Your task to perform on an android device: turn pop-ups on in chrome Image 0: 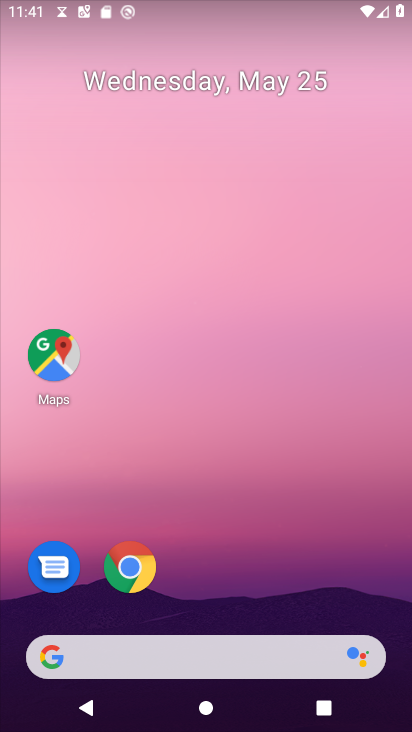
Step 0: click (137, 524)
Your task to perform on an android device: turn pop-ups on in chrome Image 1: 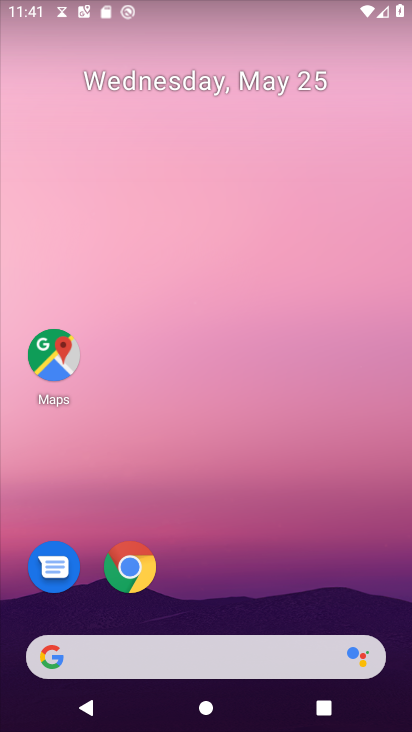
Step 1: click (136, 558)
Your task to perform on an android device: turn pop-ups on in chrome Image 2: 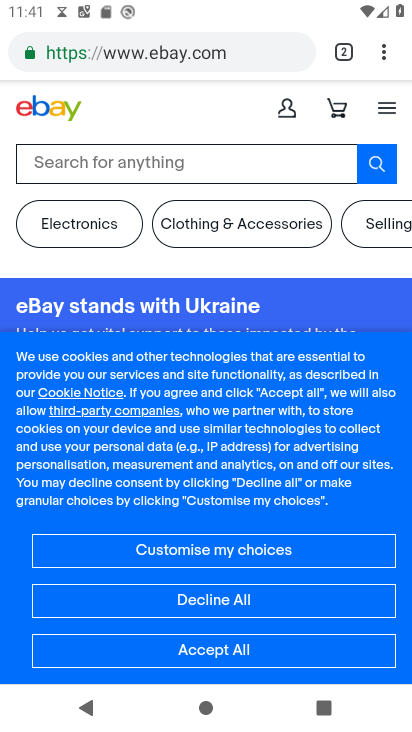
Step 2: click (383, 59)
Your task to perform on an android device: turn pop-ups on in chrome Image 3: 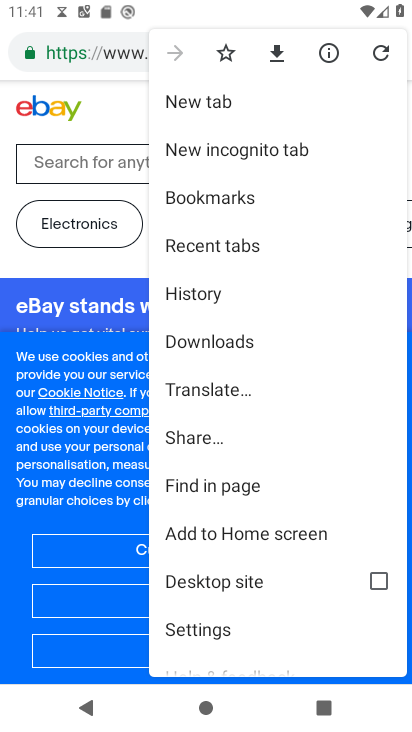
Step 3: click (221, 631)
Your task to perform on an android device: turn pop-ups on in chrome Image 4: 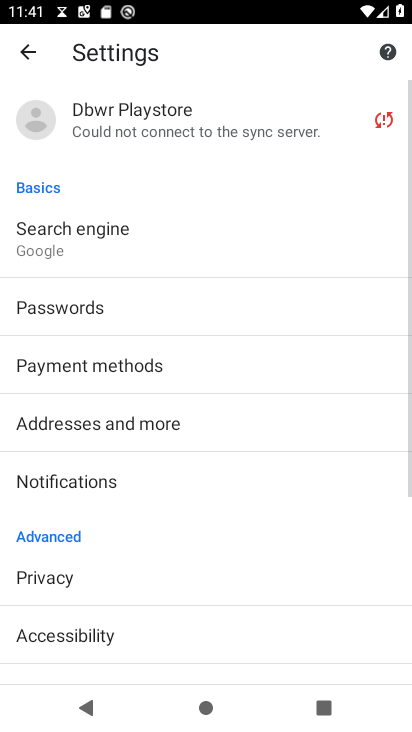
Step 4: drag from (193, 633) to (202, 214)
Your task to perform on an android device: turn pop-ups on in chrome Image 5: 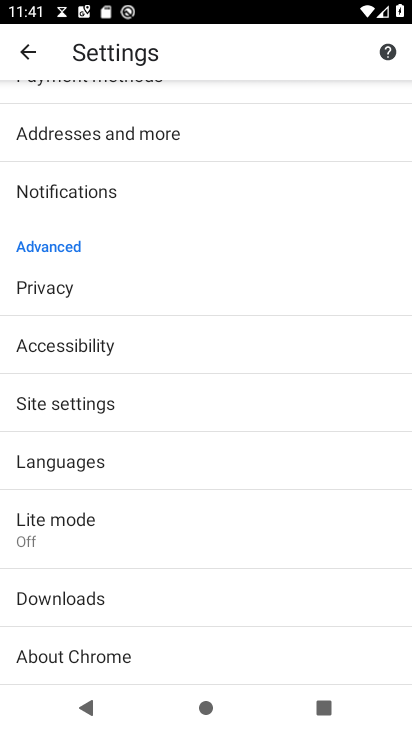
Step 5: click (38, 407)
Your task to perform on an android device: turn pop-ups on in chrome Image 6: 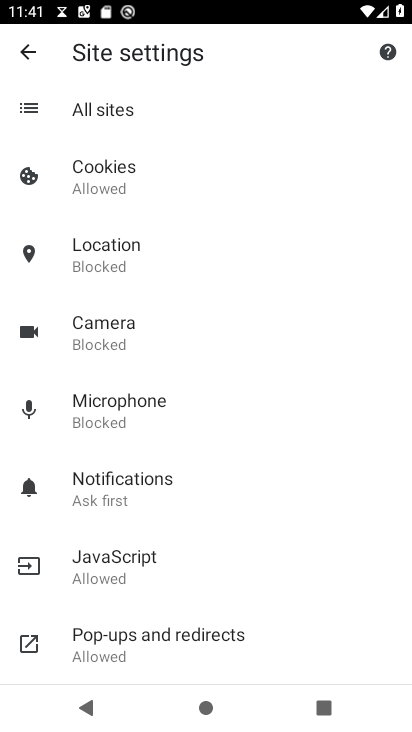
Step 6: click (112, 625)
Your task to perform on an android device: turn pop-ups on in chrome Image 7: 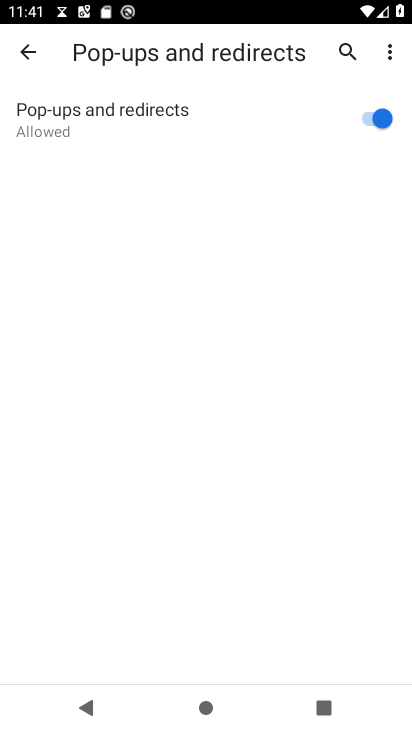
Step 7: click (379, 118)
Your task to perform on an android device: turn pop-ups on in chrome Image 8: 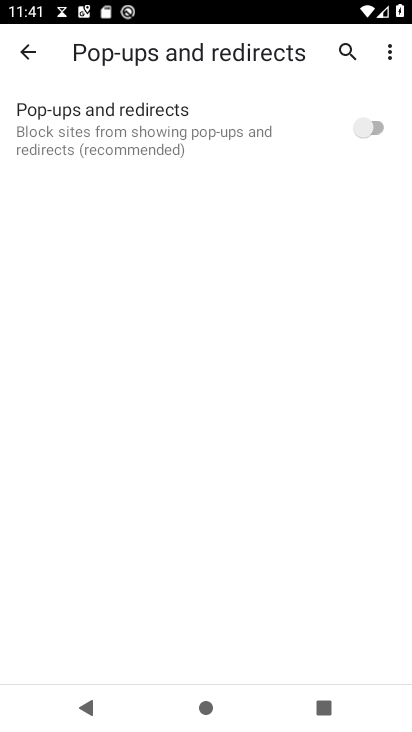
Step 8: click (379, 118)
Your task to perform on an android device: turn pop-ups on in chrome Image 9: 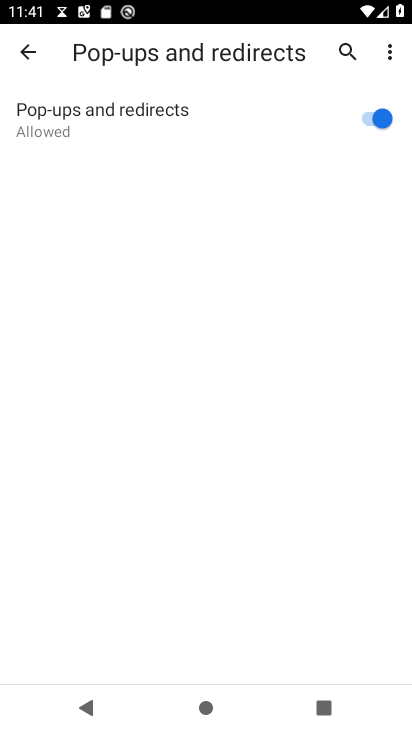
Step 9: task complete